Your task to perform on an android device: Open ESPN.com Image 0: 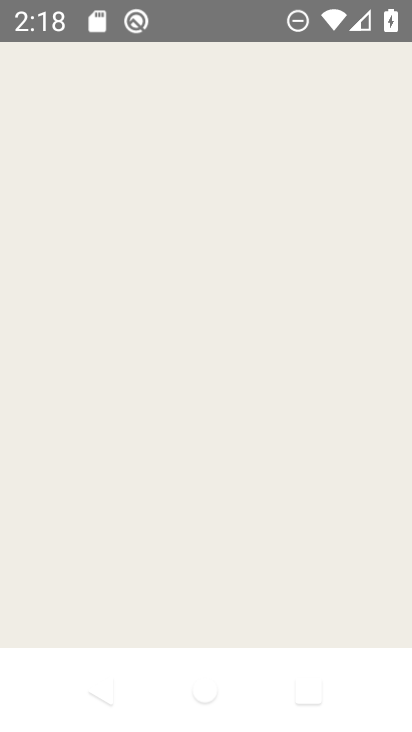
Step 0: press home button
Your task to perform on an android device: Open ESPN.com Image 1: 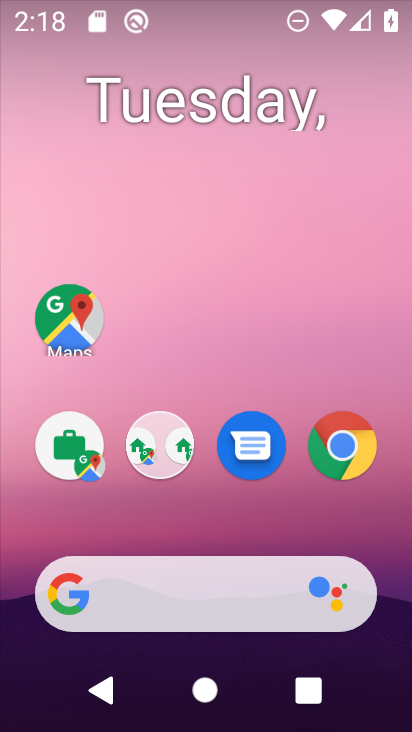
Step 1: click (364, 463)
Your task to perform on an android device: Open ESPN.com Image 2: 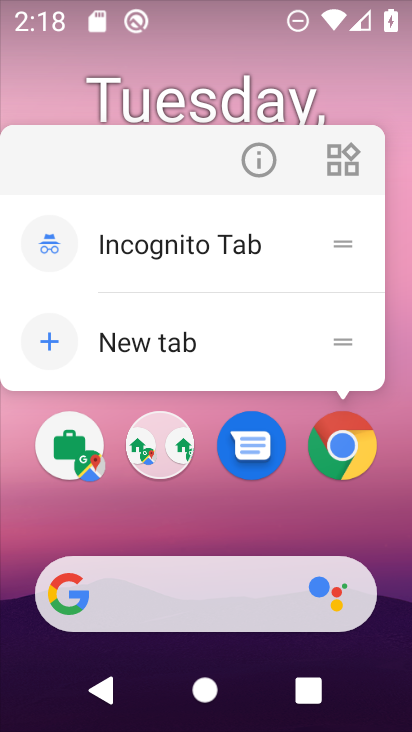
Step 2: click (262, 173)
Your task to perform on an android device: Open ESPN.com Image 3: 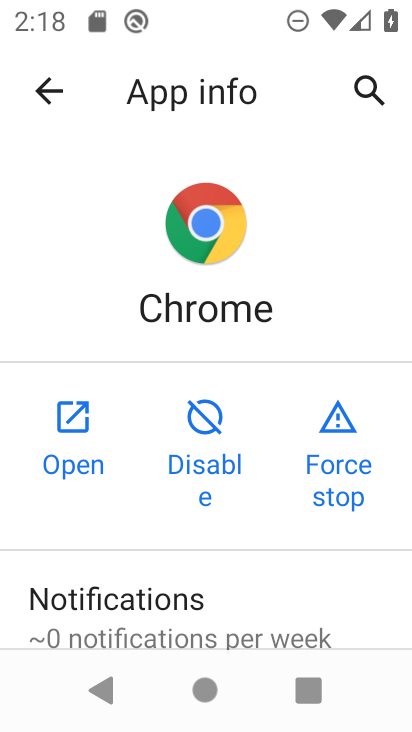
Step 3: click (96, 423)
Your task to perform on an android device: Open ESPN.com Image 4: 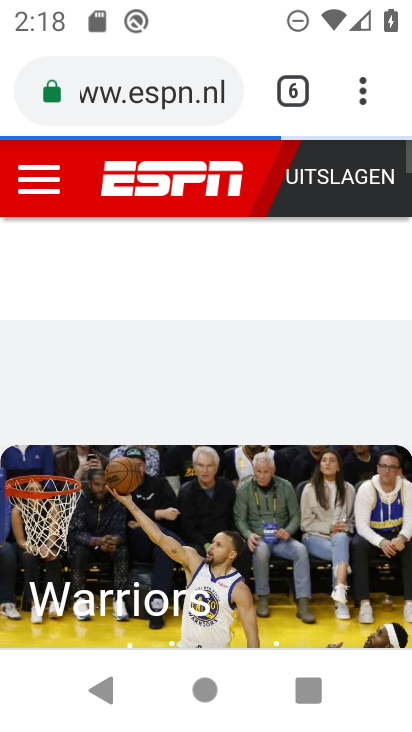
Step 4: task complete